Your task to perform on an android device: check storage Image 0: 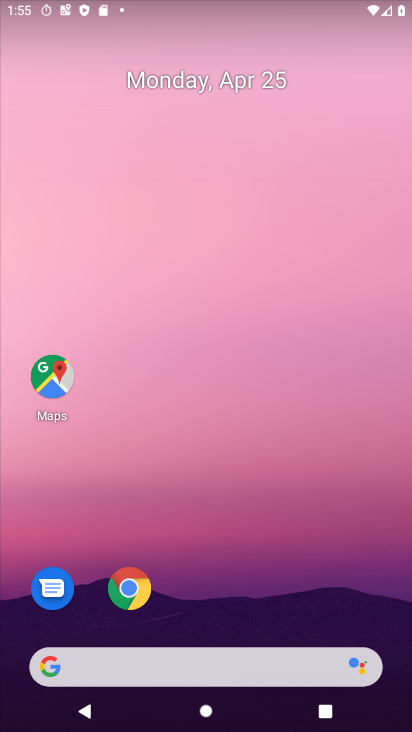
Step 0: drag from (221, 512) to (265, 195)
Your task to perform on an android device: check storage Image 1: 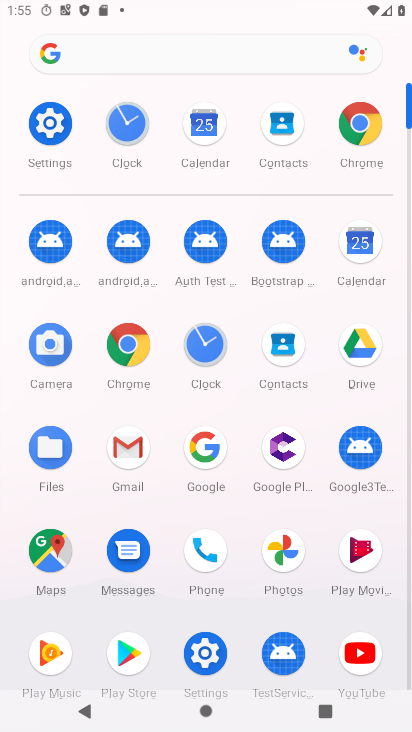
Step 1: click (41, 129)
Your task to perform on an android device: check storage Image 2: 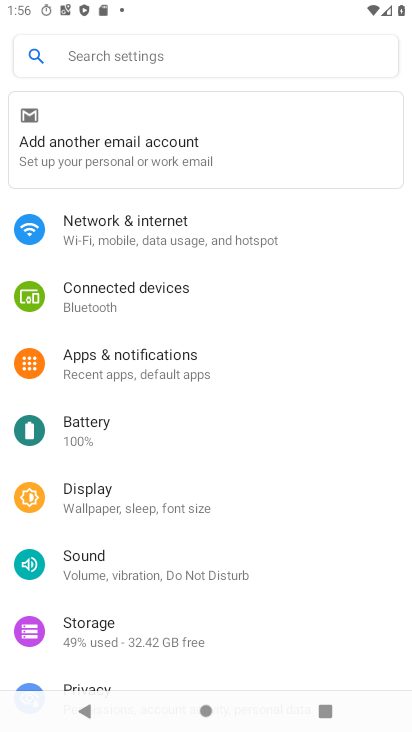
Step 2: click (141, 622)
Your task to perform on an android device: check storage Image 3: 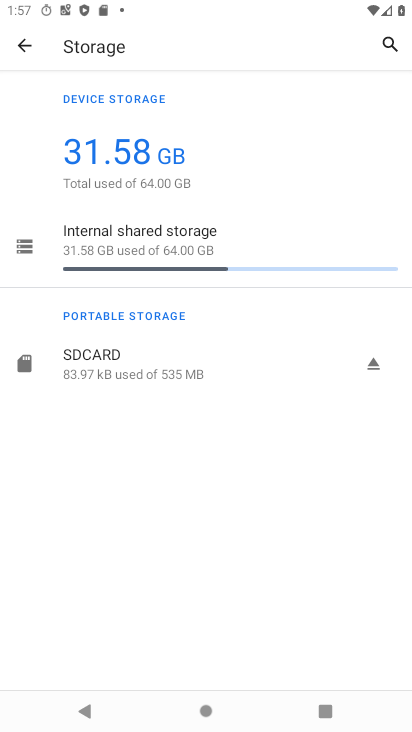
Step 3: click (222, 241)
Your task to perform on an android device: check storage Image 4: 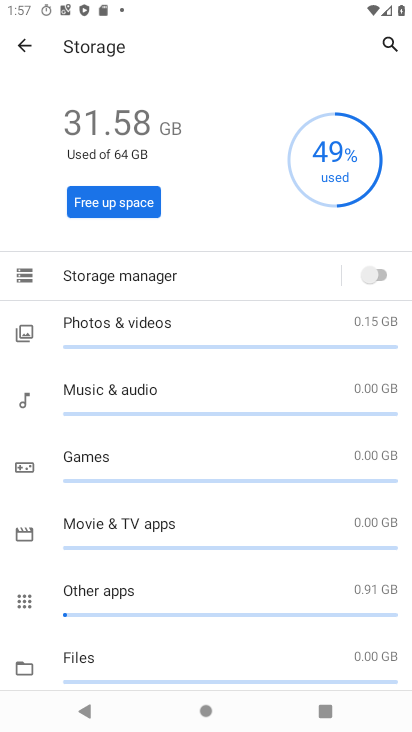
Step 4: task complete